Your task to perform on an android device: change notification settings in the gmail app Image 0: 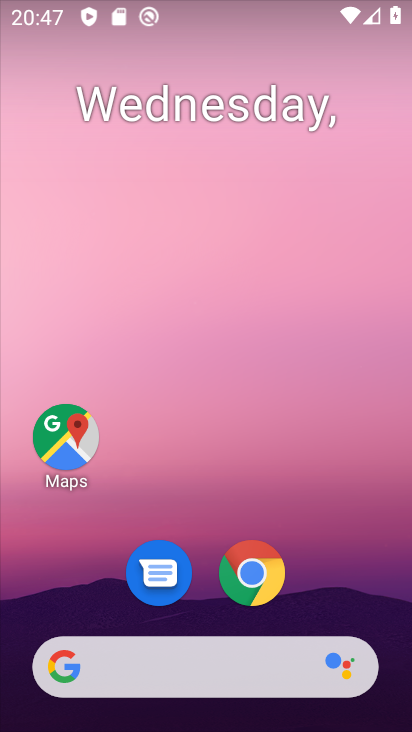
Step 0: click (347, 228)
Your task to perform on an android device: change notification settings in the gmail app Image 1: 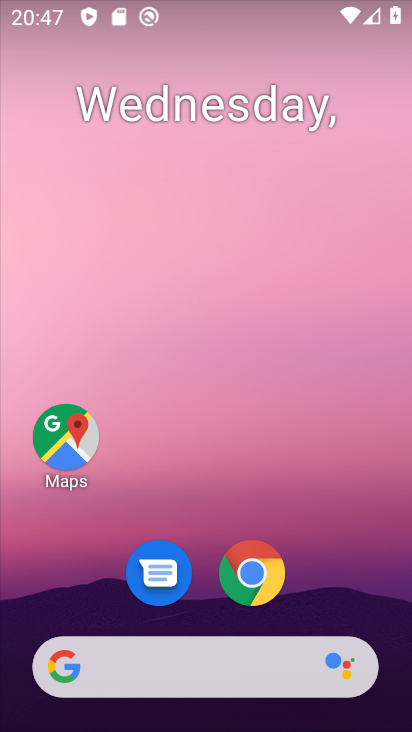
Step 1: click (335, 202)
Your task to perform on an android device: change notification settings in the gmail app Image 2: 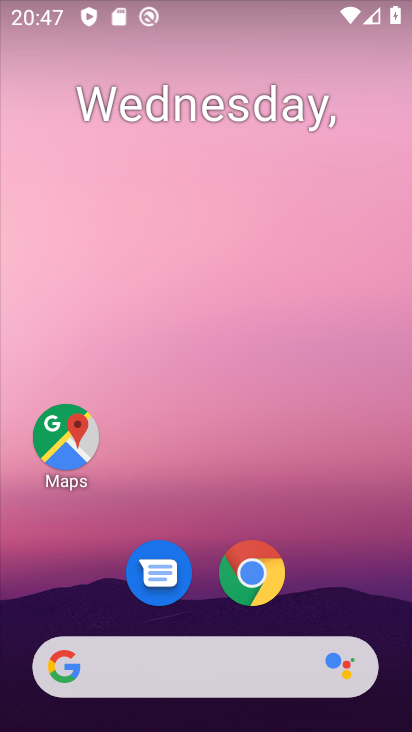
Step 2: drag from (340, 574) to (313, 73)
Your task to perform on an android device: change notification settings in the gmail app Image 3: 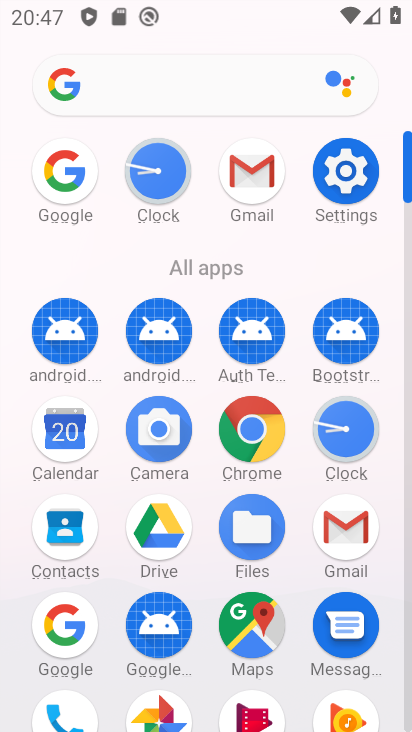
Step 3: click (343, 543)
Your task to perform on an android device: change notification settings in the gmail app Image 4: 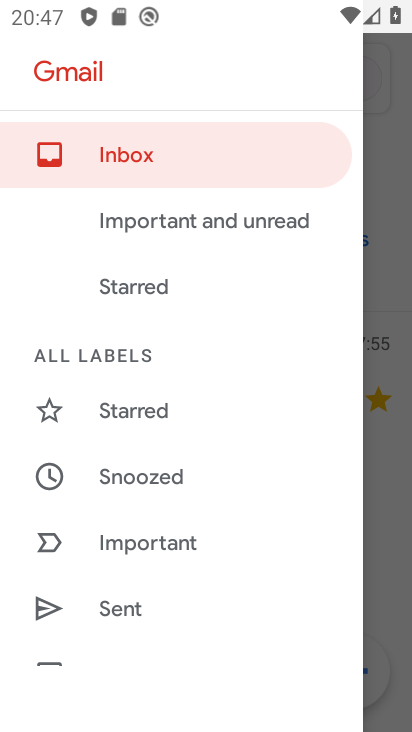
Step 4: drag from (256, 518) to (274, 324)
Your task to perform on an android device: change notification settings in the gmail app Image 5: 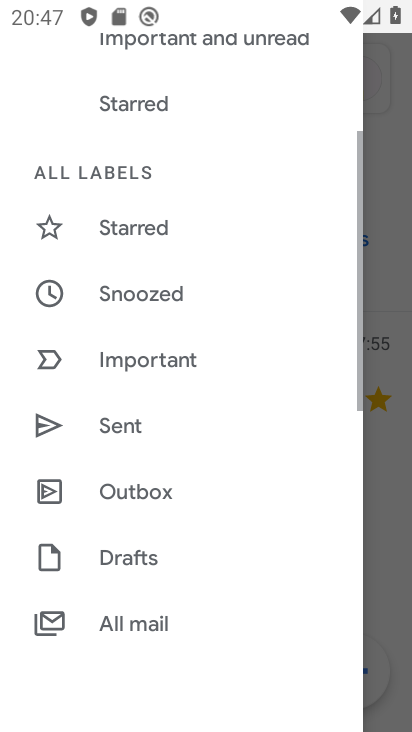
Step 5: drag from (248, 619) to (254, 259)
Your task to perform on an android device: change notification settings in the gmail app Image 6: 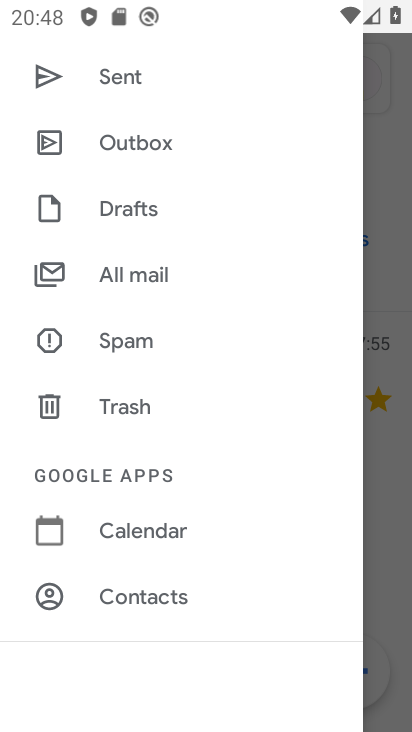
Step 6: drag from (257, 511) to (273, 248)
Your task to perform on an android device: change notification settings in the gmail app Image 7: 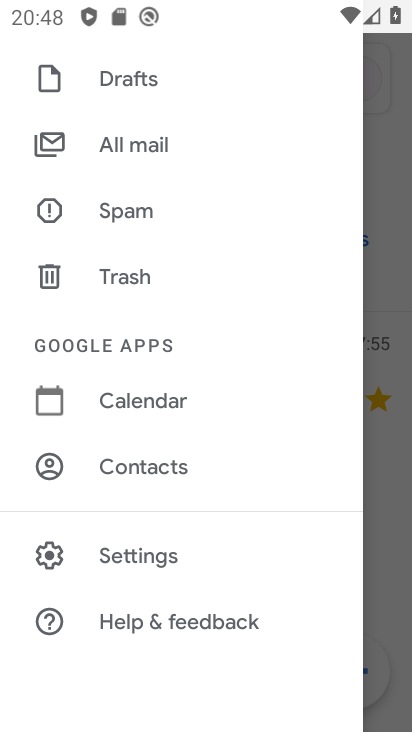
Step 7: click (117, 543)
Your task to perform on an android device: change notification settings in the gmail app Image 8: 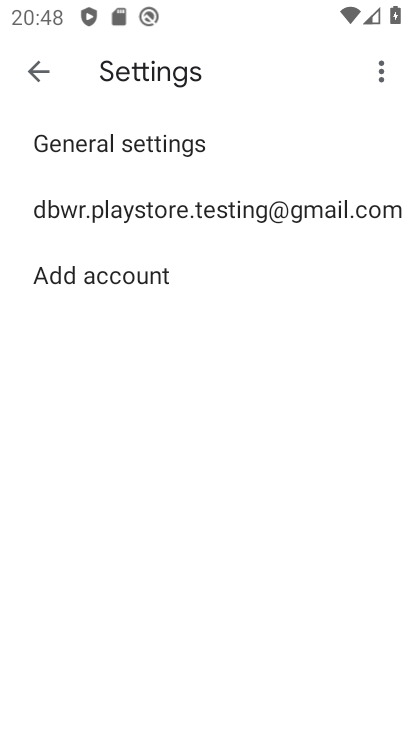
Step 8: click (133, 138)
Your task to perform on an android device: change notification settings in the gmail app Image 9: 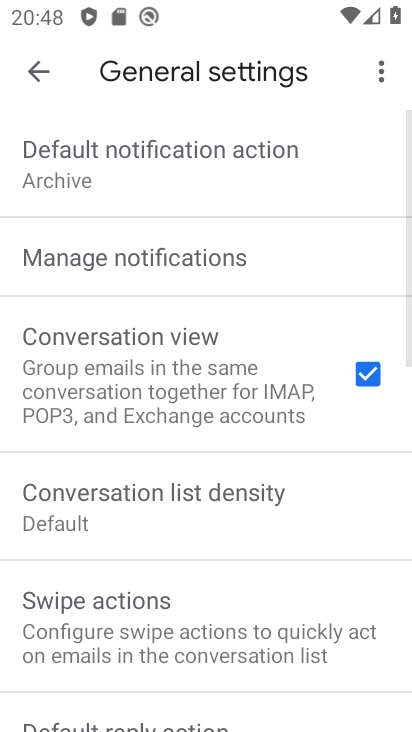
Step 9: click (124, 265)
Your task to perform on an android device: change notification settings in the gmail app Image 10: 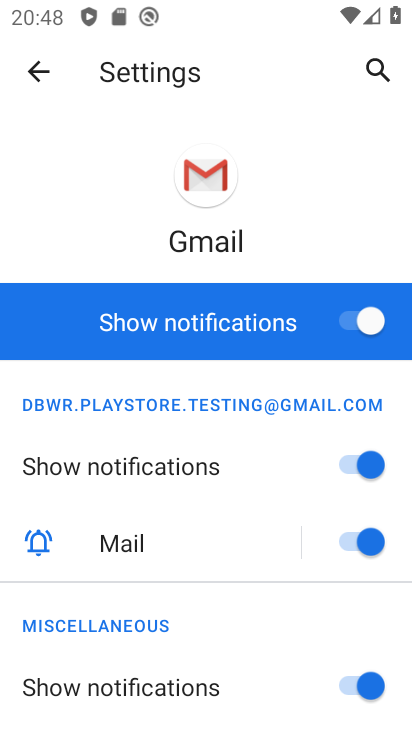
Step 10: click (339, 465)
Your task to perform on an android device: change notification settings in the gmail app Image 11: 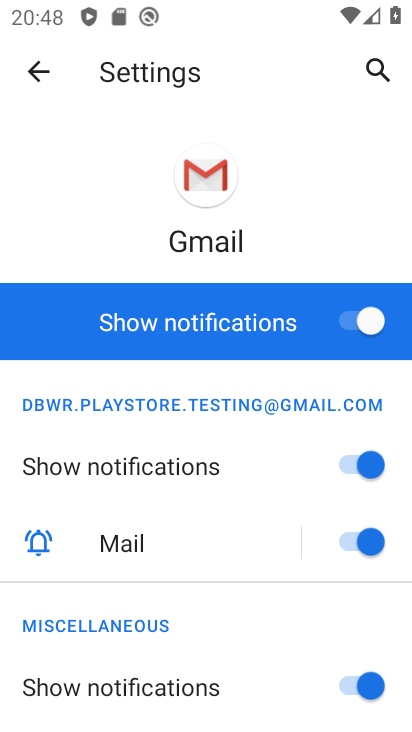
Step 11: click (334, 542)
Your task to perform on an android device: change notification settings in the gmail app Image 12: 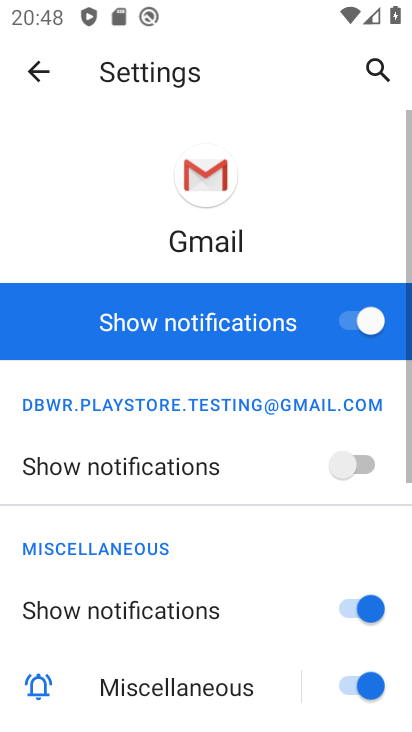
Step 12: click (340, 675)
Your task to perform on an android device: change notification settings in the gmail app Image 13: 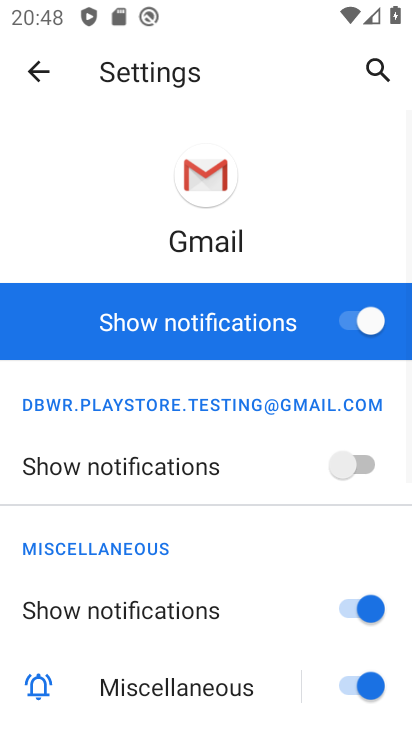
Step 13: click (353, 599)
Your task to perform on an android device: change notification settings in the gmail app Image 14: 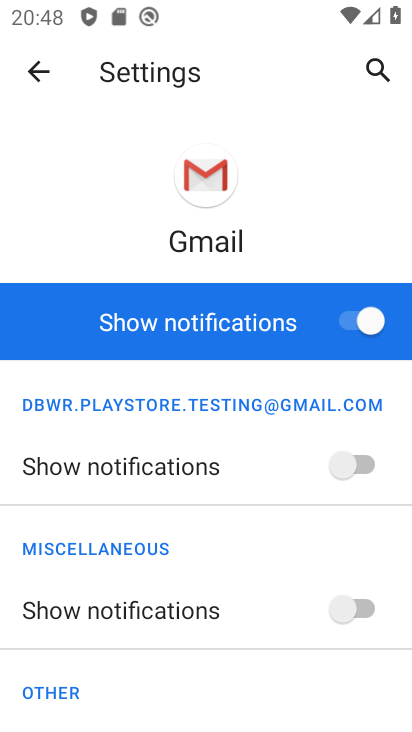
Step 14: drag from (264, 528) to (261, 210)
Your task to perform on an android device: change notification settings in the gmail app Image 15: 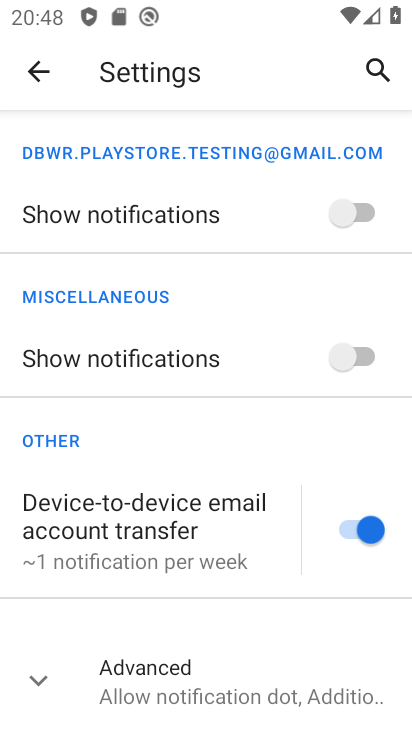
Step 15: click (338, 527)
Your task to perform on an android device: change notification settings in the gmail app Image 16: 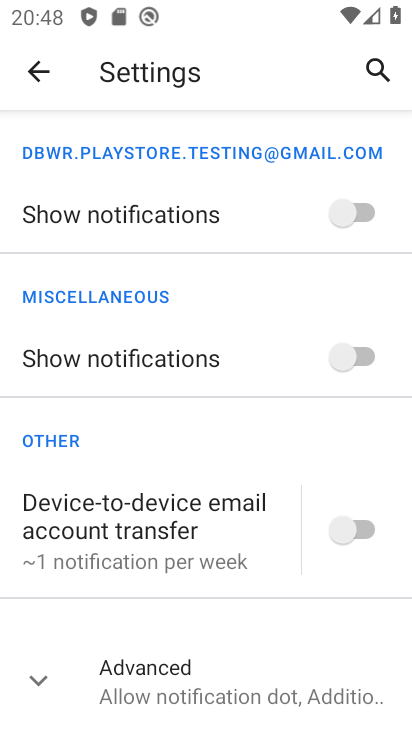
Step 16: task complete